Your task to perform on an android device: Open internet settings Image 0: 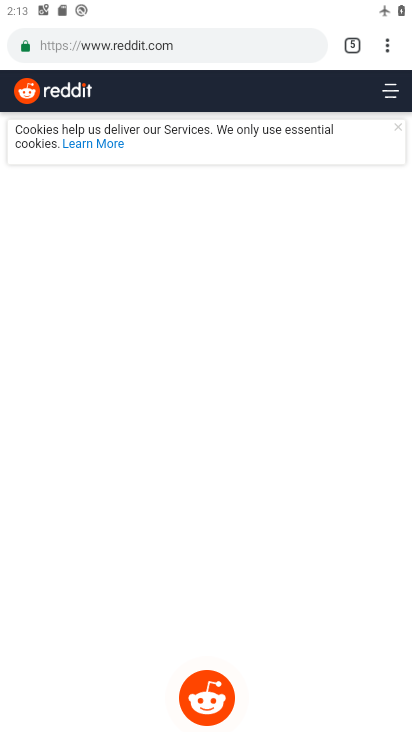
Step 0: press home button
Your task to perform on an android device: Open internet settings Image 1: 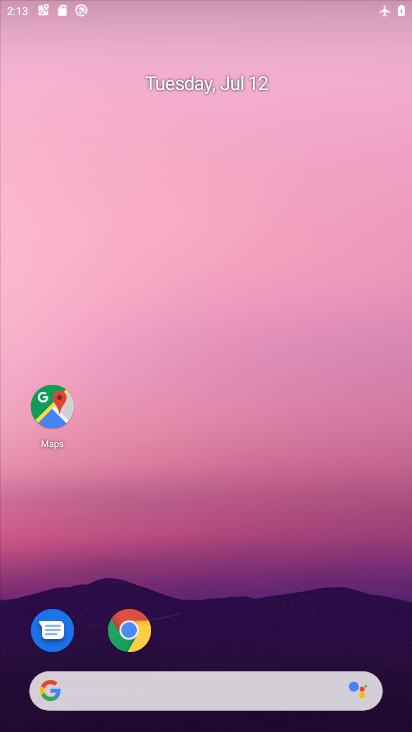
Step 1: drag from (216, 586) to (403, 231)
Your task to perform on an android device: Open internet settings Image 2: 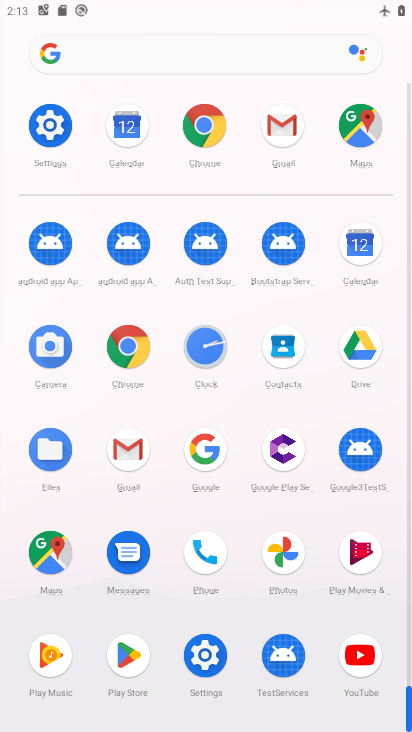
Step 2: click (55, 154)
Your task to perform on an android device: Open internet settings Image 3: 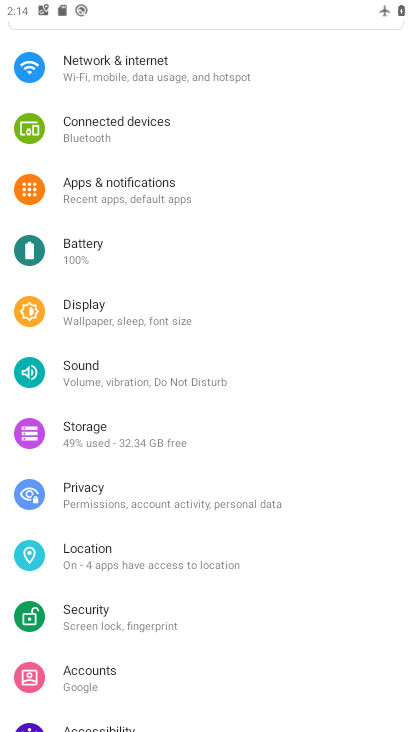
Step 3: click (175, 64)
Your task to perform on an android device: Open internet settings Image 4: 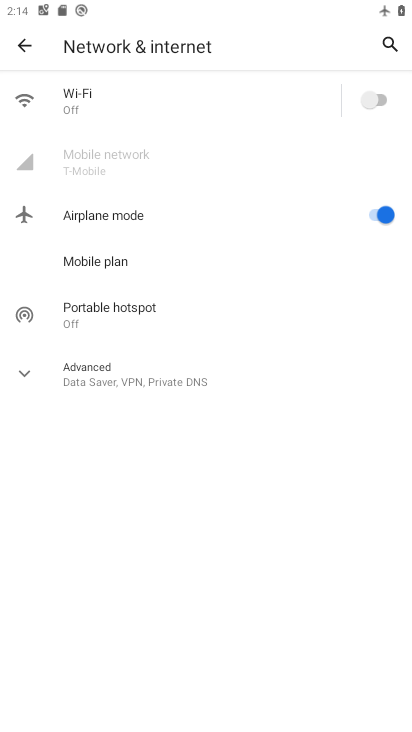
Step 4: click (162, 159)
Your task to perform on an android device: Open internet settings Image 5: 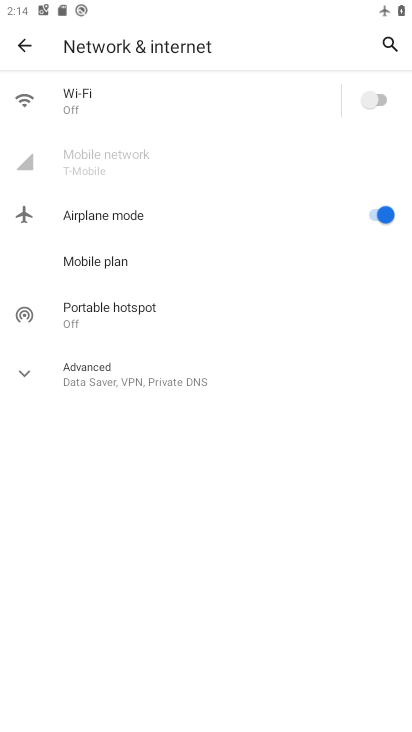
Step 5: task complete